Your task to perform on an android device: Open Google Image 0: 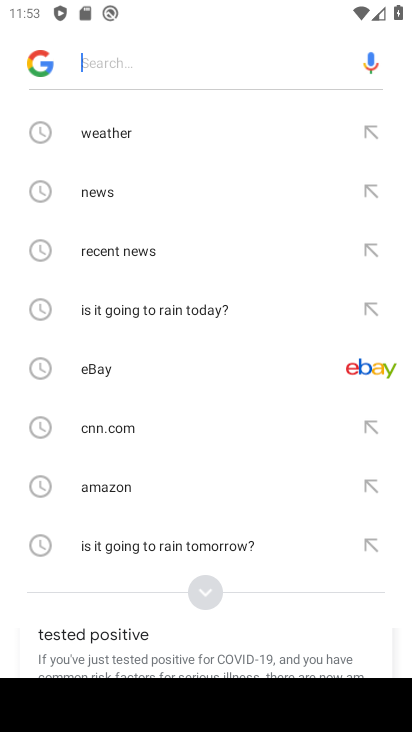
Step 0: press back button
Your task to perform on an android device: Open Google Image 1: 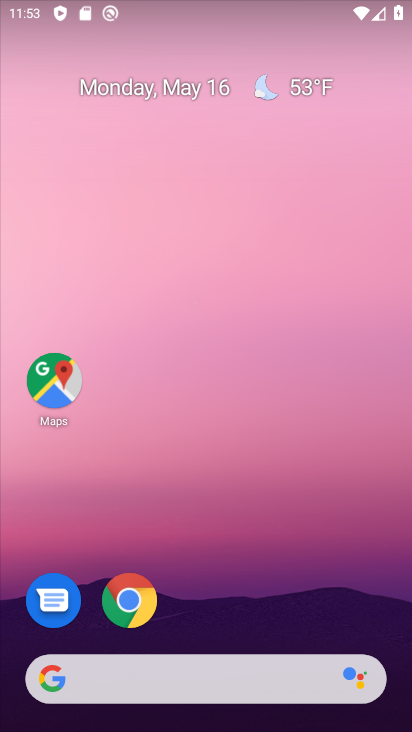
Step 1: drag from (342, 479) to (341, 104)
Your task to perform on an android device: Open Google Image 2: 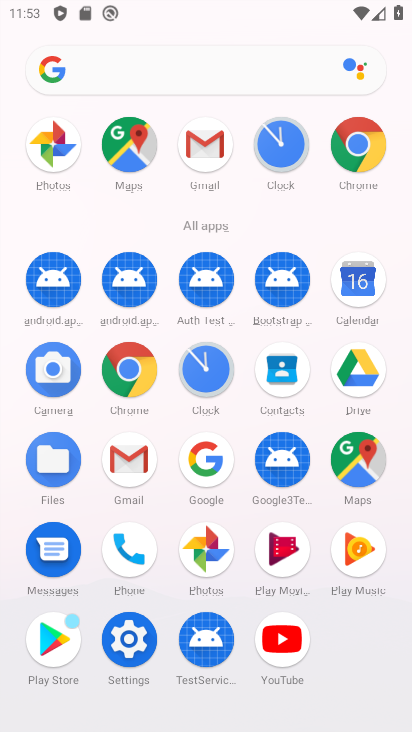
Step 2: click (212, 461)
Your task to perform on an android device: Open Google Image 3: 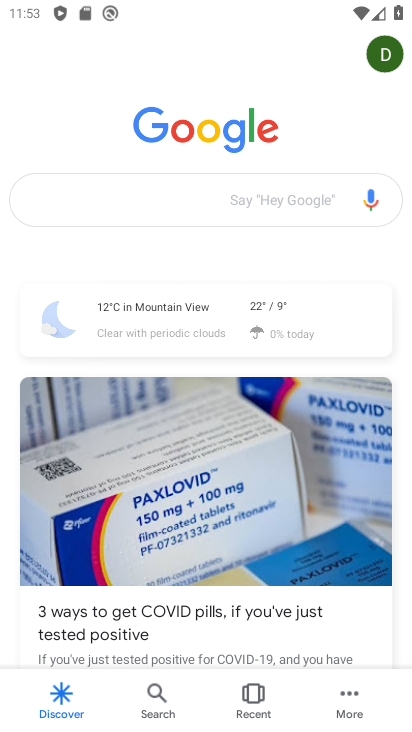
Step 3: task complete